Your task to perform on an android device: Open display settings Image 0: 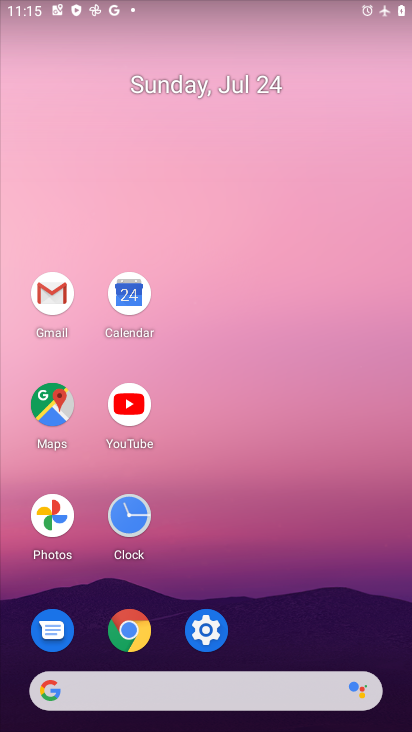
Step 0: click (204, 628)
Your task to perform on an android device: Open display settings Image 1: 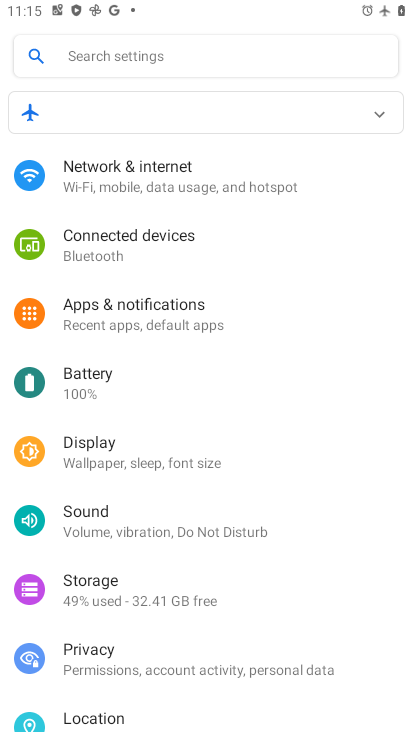
Step 1: click (75, 434)
Your task to perform on an android device: Open display settings Image 2: 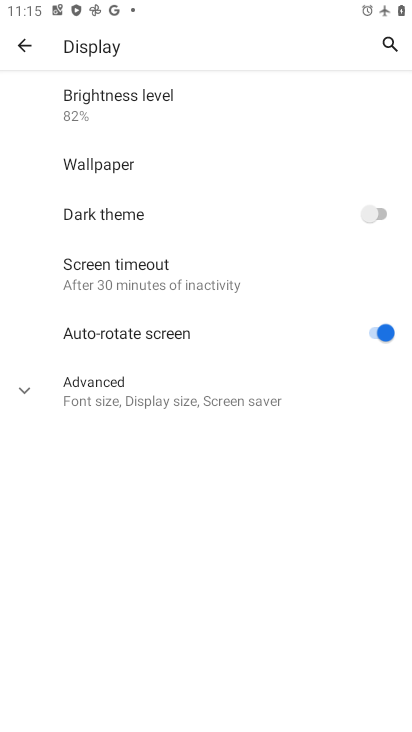
Step 2: task complete